Your task to perform on an android device: toggle javascript in the chrome app Image 0: 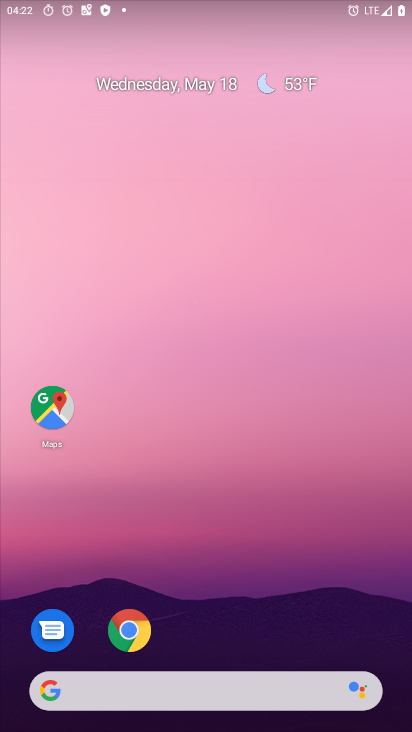
Step 0: click (135, 639)
Your task to perform on an android device: toggle javascript in the chrome app Image 1: 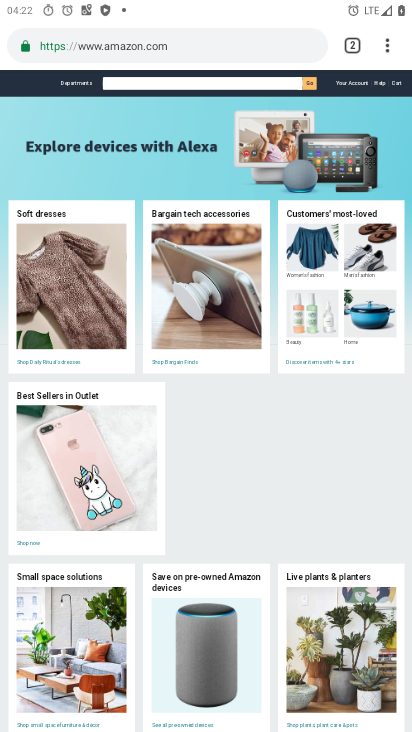
Step 1: click (387, 56)
Your task to perform on an android device: toggle javascript in the chrome app Image 2: 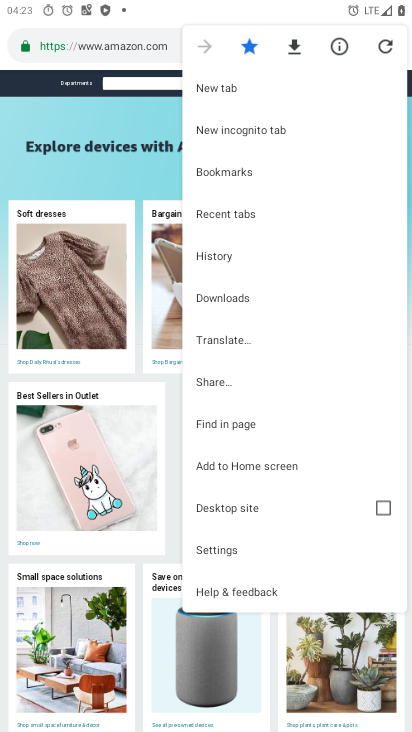
Step 2: click (230, 551)
Your task to perform on an android device: toggle javascript in the chrome app Image 3: 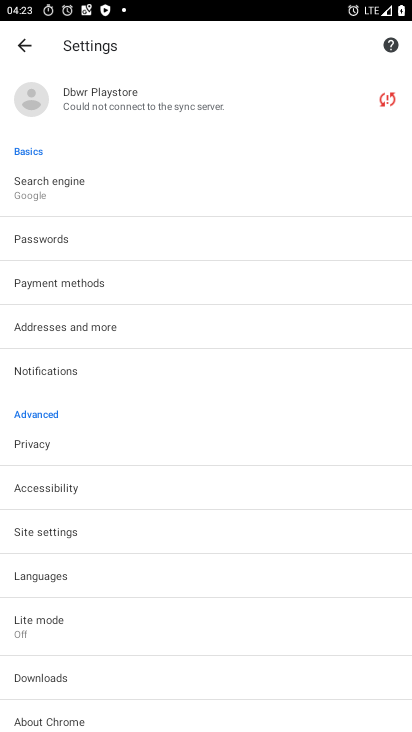
Step 3: click (45, 531)
Your task to perform on an android device: toggle javascript in the chrome app Image 4: 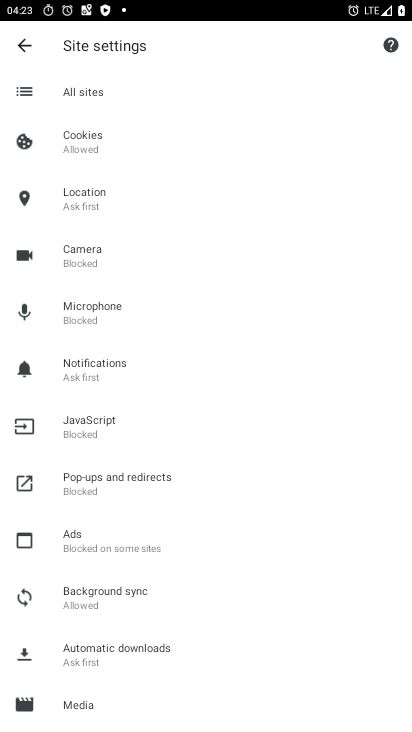
Step 4: click (91, 422)
Your task to perform on an android device: toggle javascript in the chrome app Image 5: 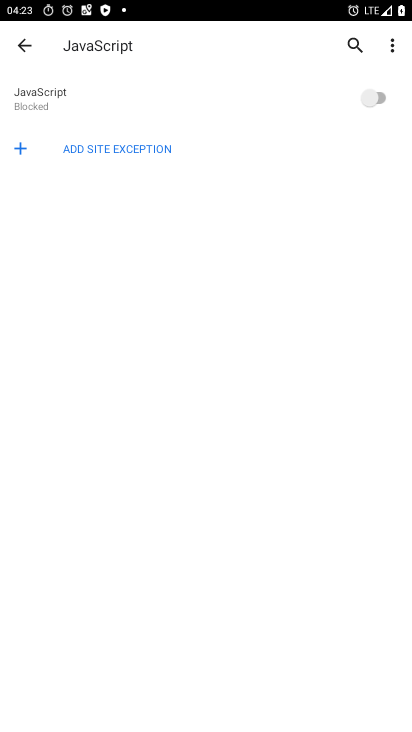
Step 5: click (386, 97)
Your task to perform on an android device: toggle javascript in the chrome app Image 6: 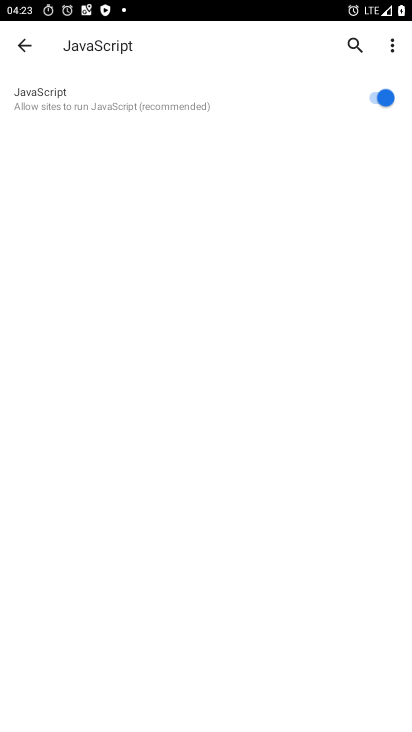
Step 6: task complete